Your task to perform on an android device: change the upload size in google photos Image 0: 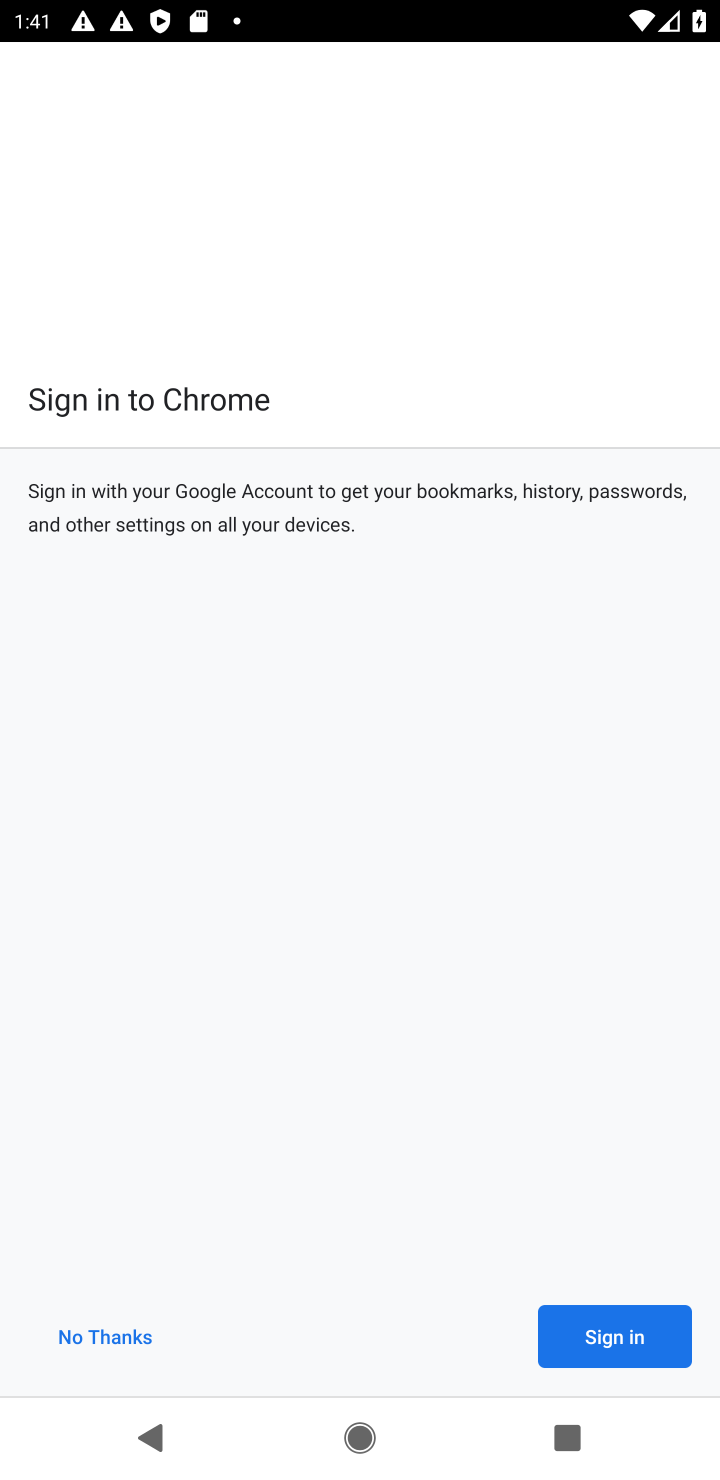
Step 0: press home button
Your task to perform on an android device: change the upload size in google photos Image 1: 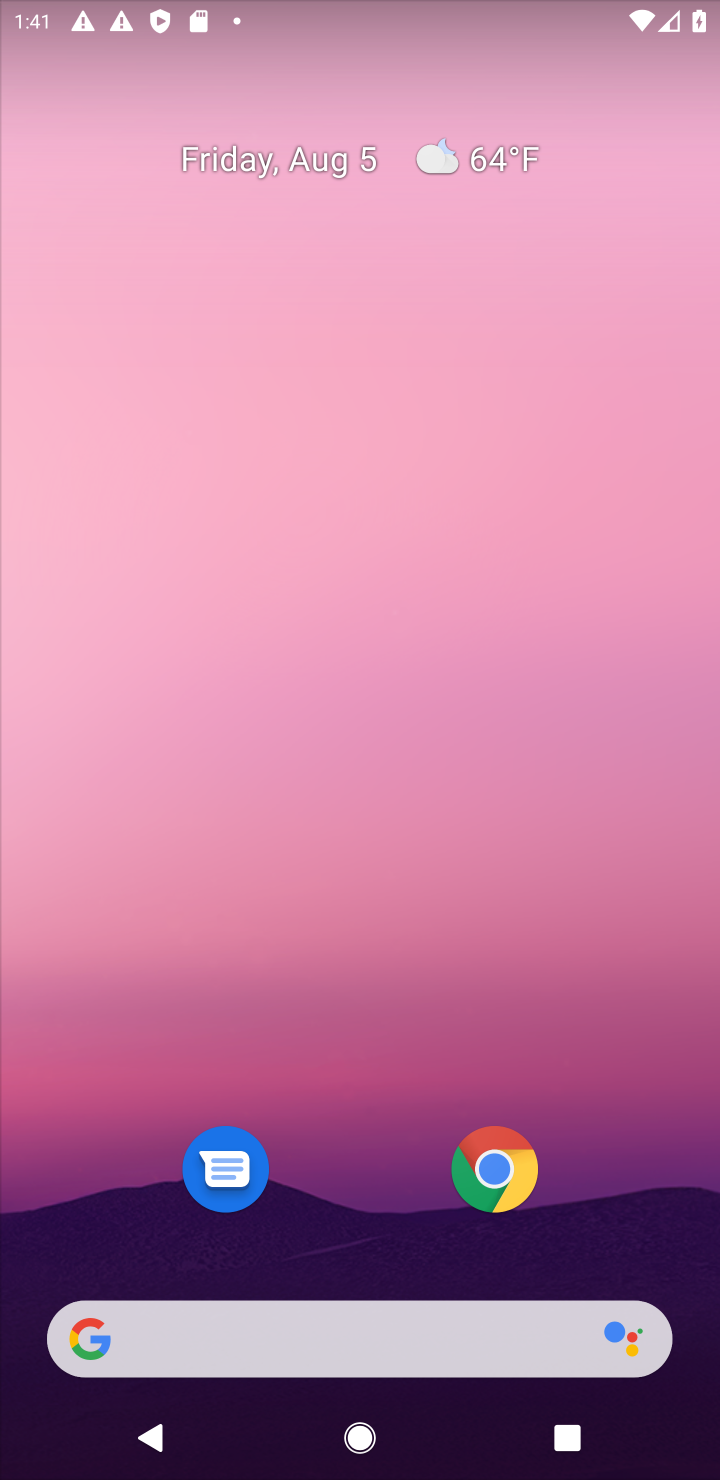
Step 1: drag from (321, 1123) to (214, 332)
Your task to perform on an android device: change the upload size in google photos Image 2: 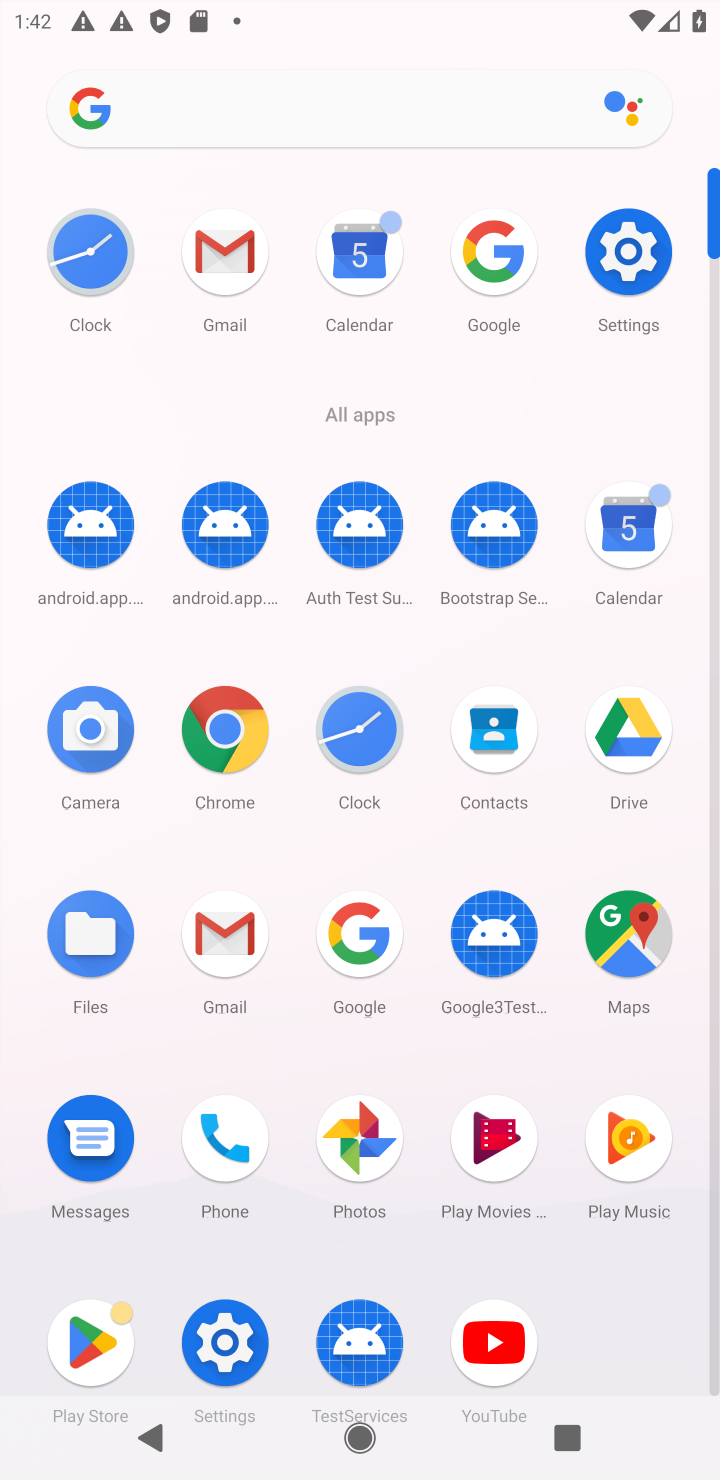
Step 2: click (377, 1142)
Your task to perform on an android device: change the upload size in google photos Image 3: 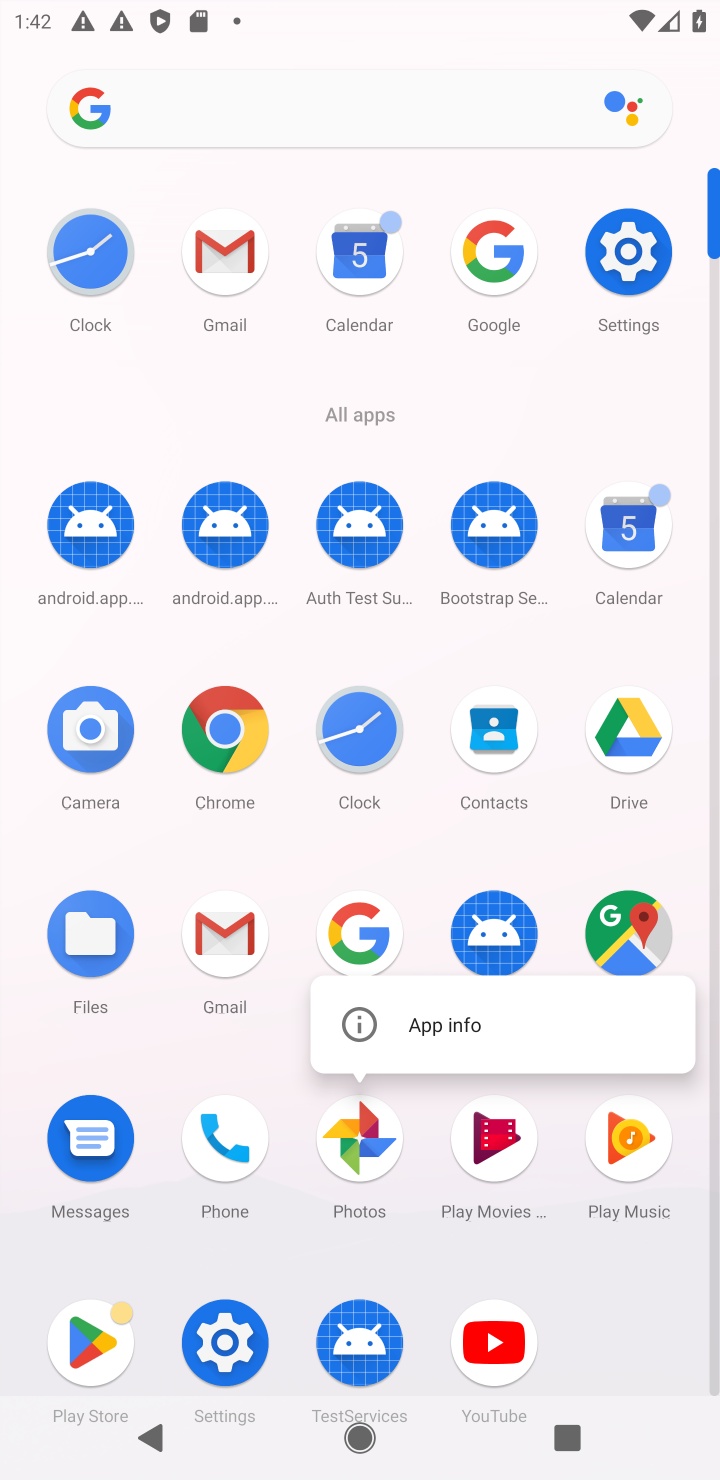
Step 3: click (377, 1142)
Your task to perform on an android device: change the upload size in google photos Image 4: 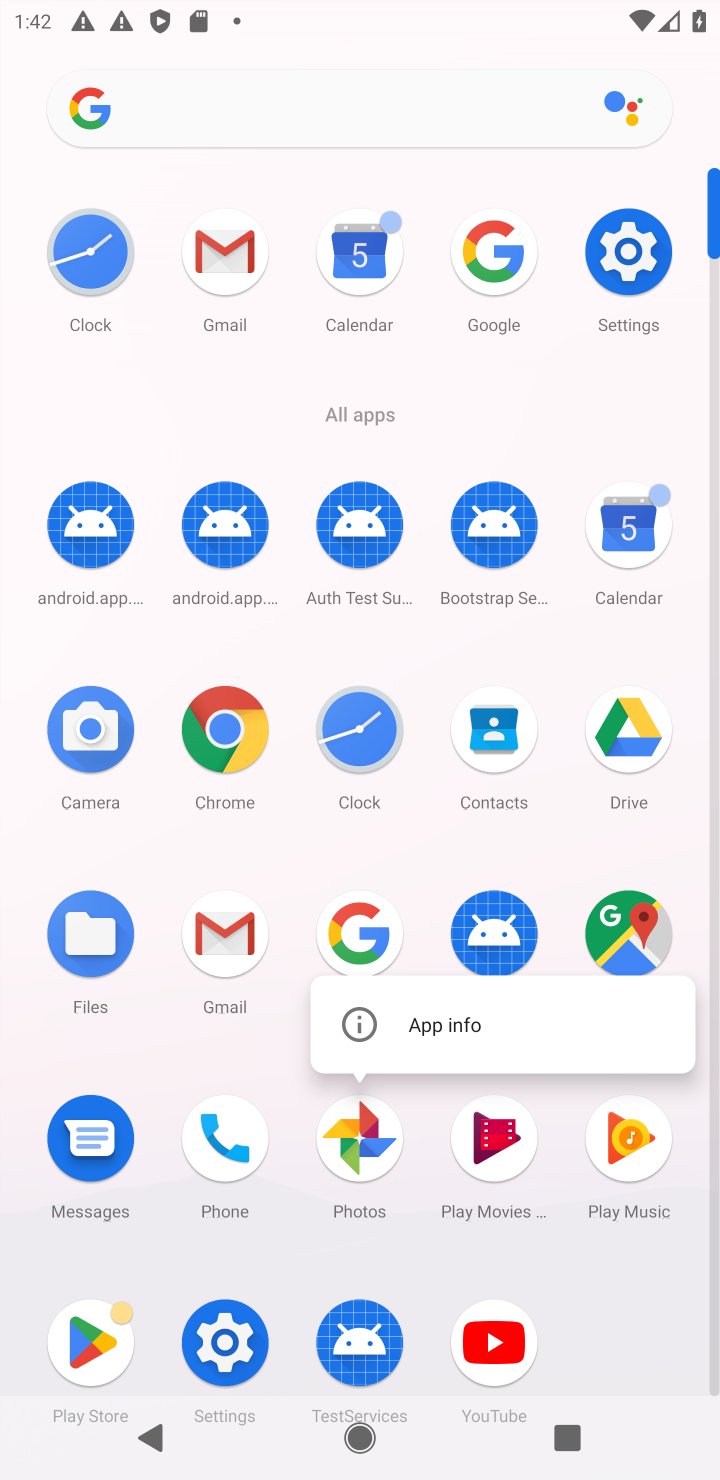
Step 4: click (327, 1142)
Your task to perform on an android device: change the upload size in google photos Image 5: 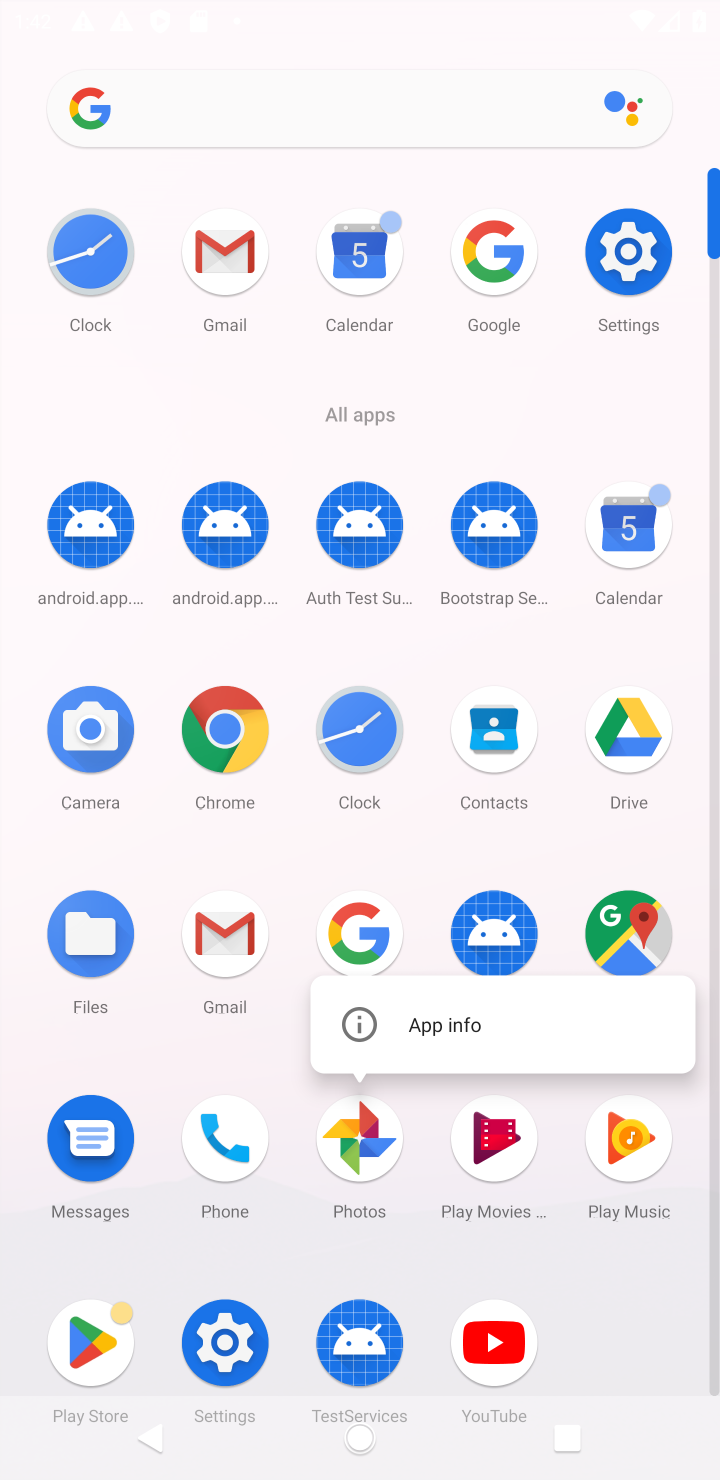
Step 5: click (353, 1135)
Your task to perform on an android device: change the upload size in google photos Image 6: 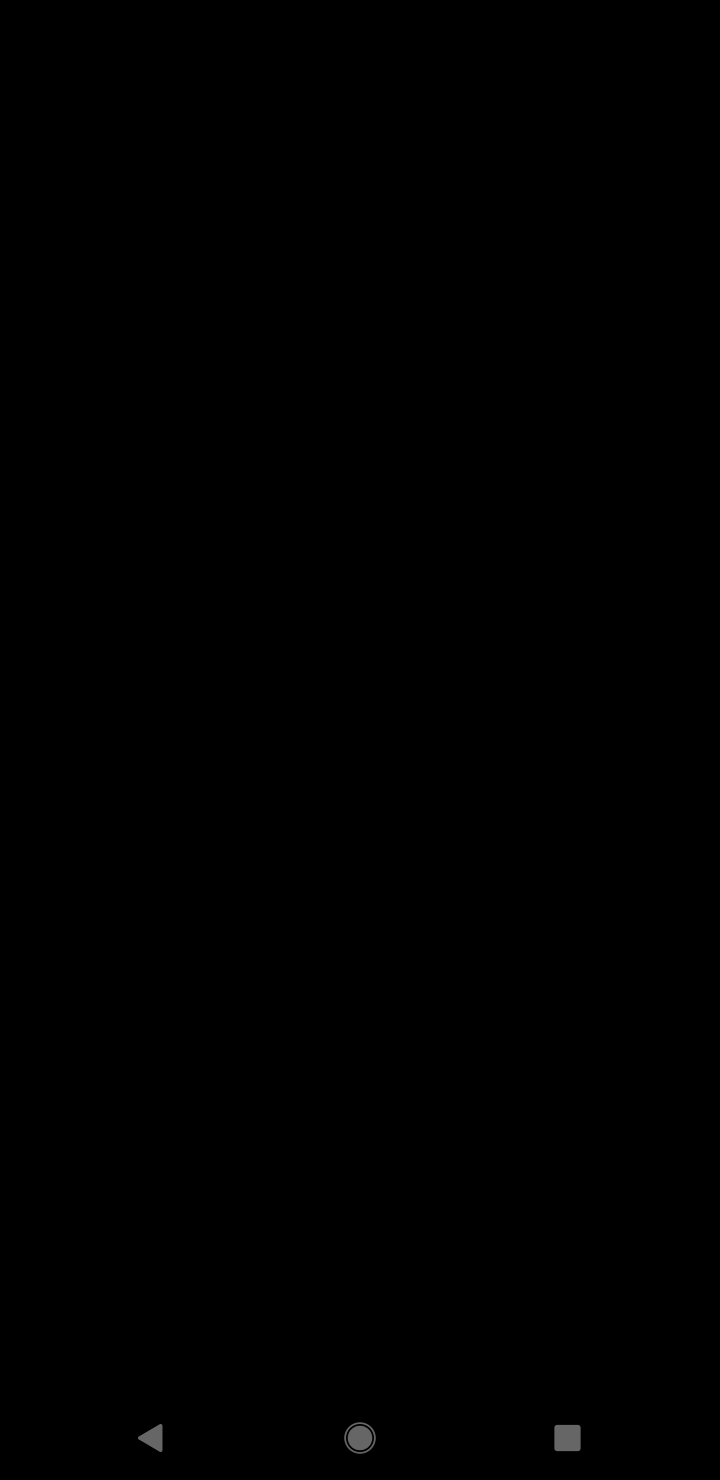
Step 6: press home button
Your task to perform on an android device: change the upload size in google photos Image 7: 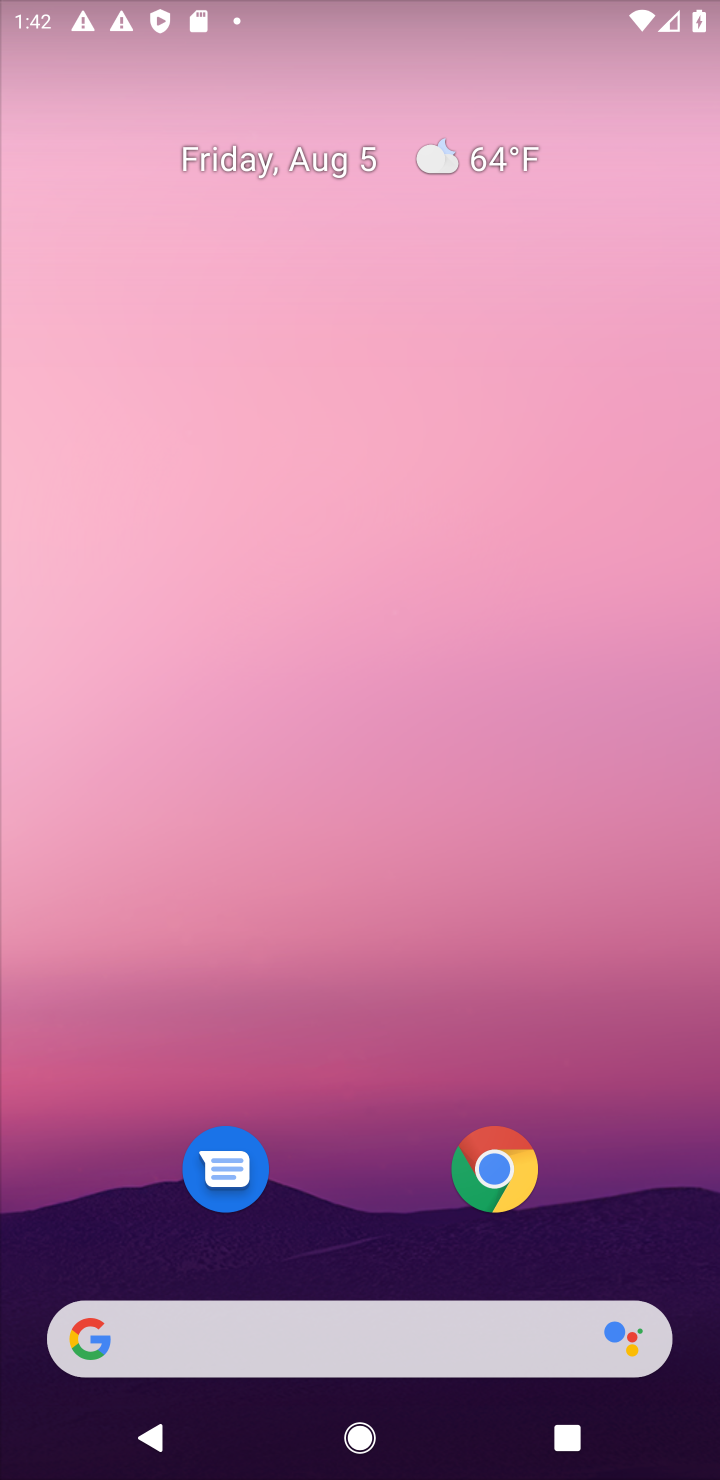
Step 7: drag from (362, 879) to (299, 455)
Your task to perform on an android device: change the upload size in google photos Image 8: 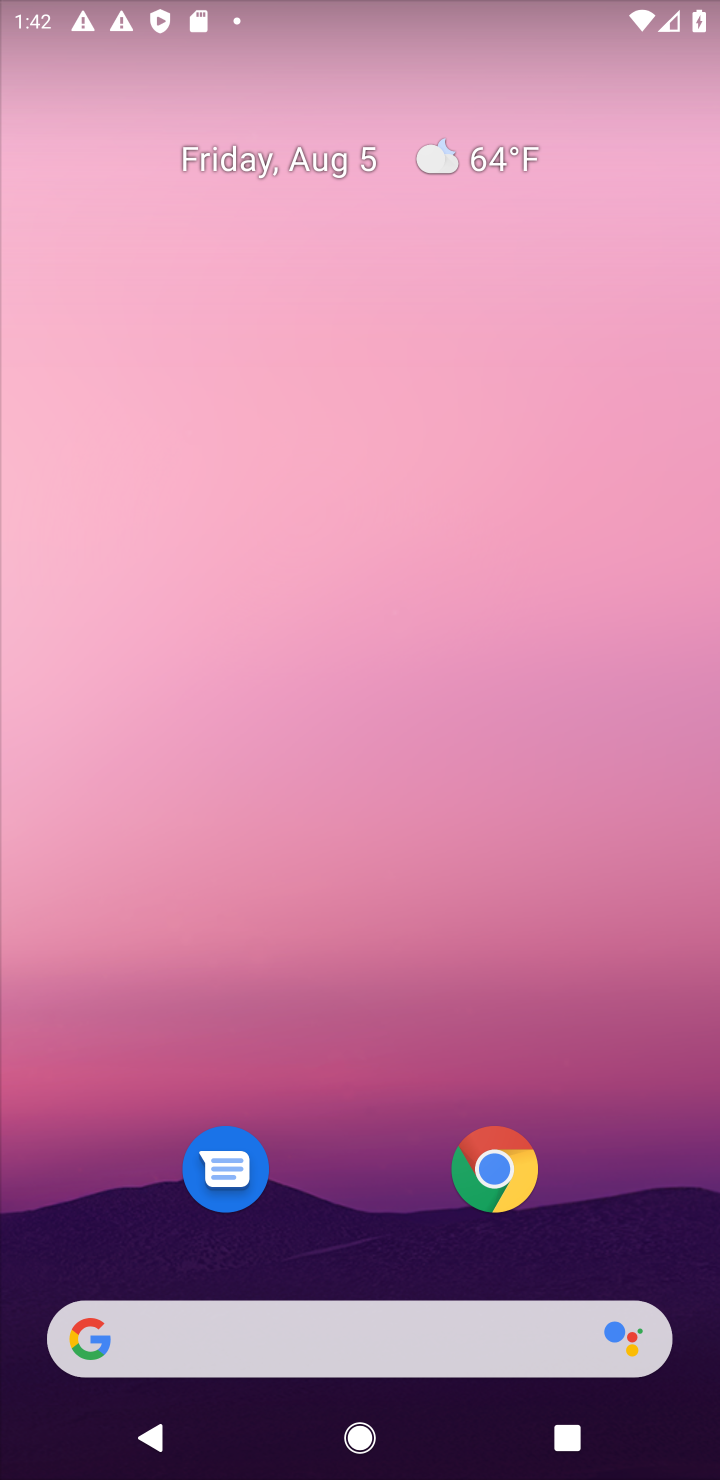
Step 8: drag from (356, 1009) to (359, 33)
Your task to perform on an android device: change the upload size in google photos Image 9: 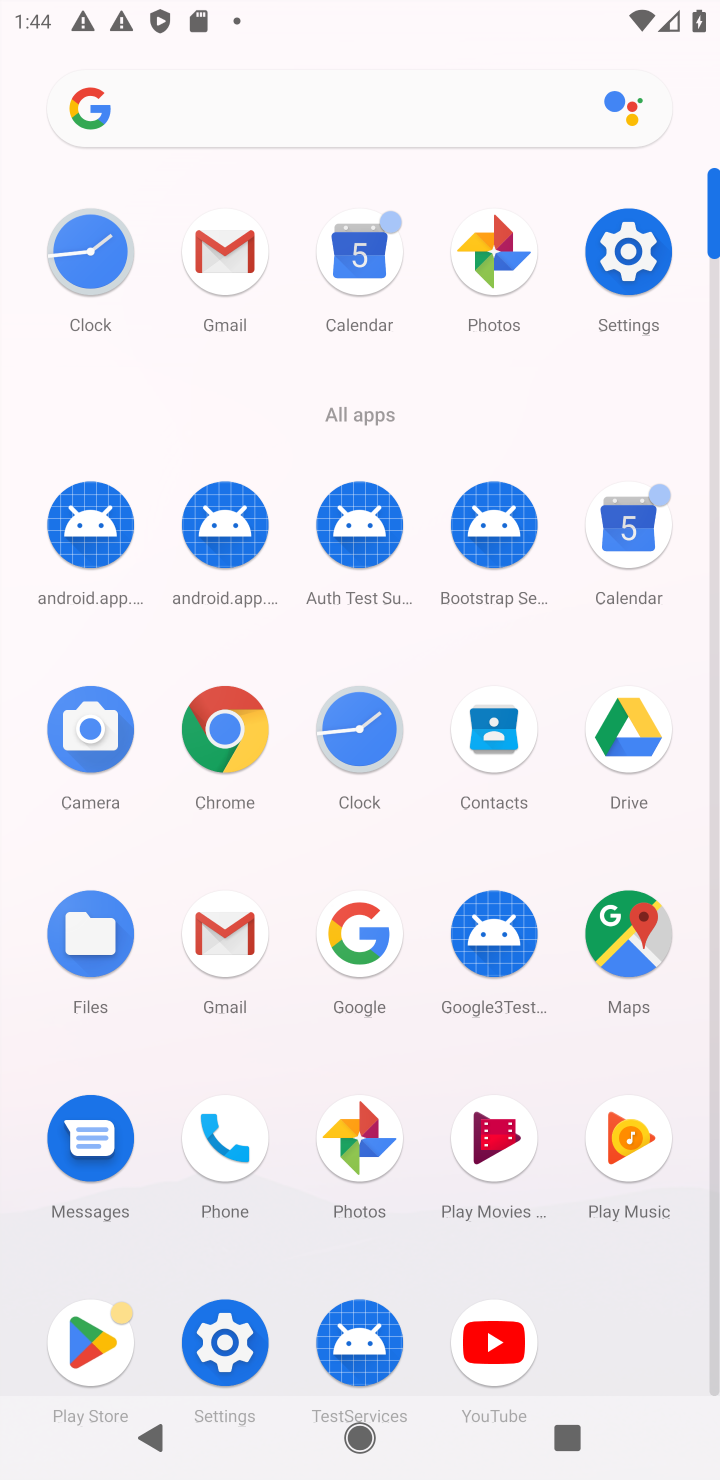
Step 9: click (517, 270)
Your task to perform on an android device: change the upload size in google photos Image 10: 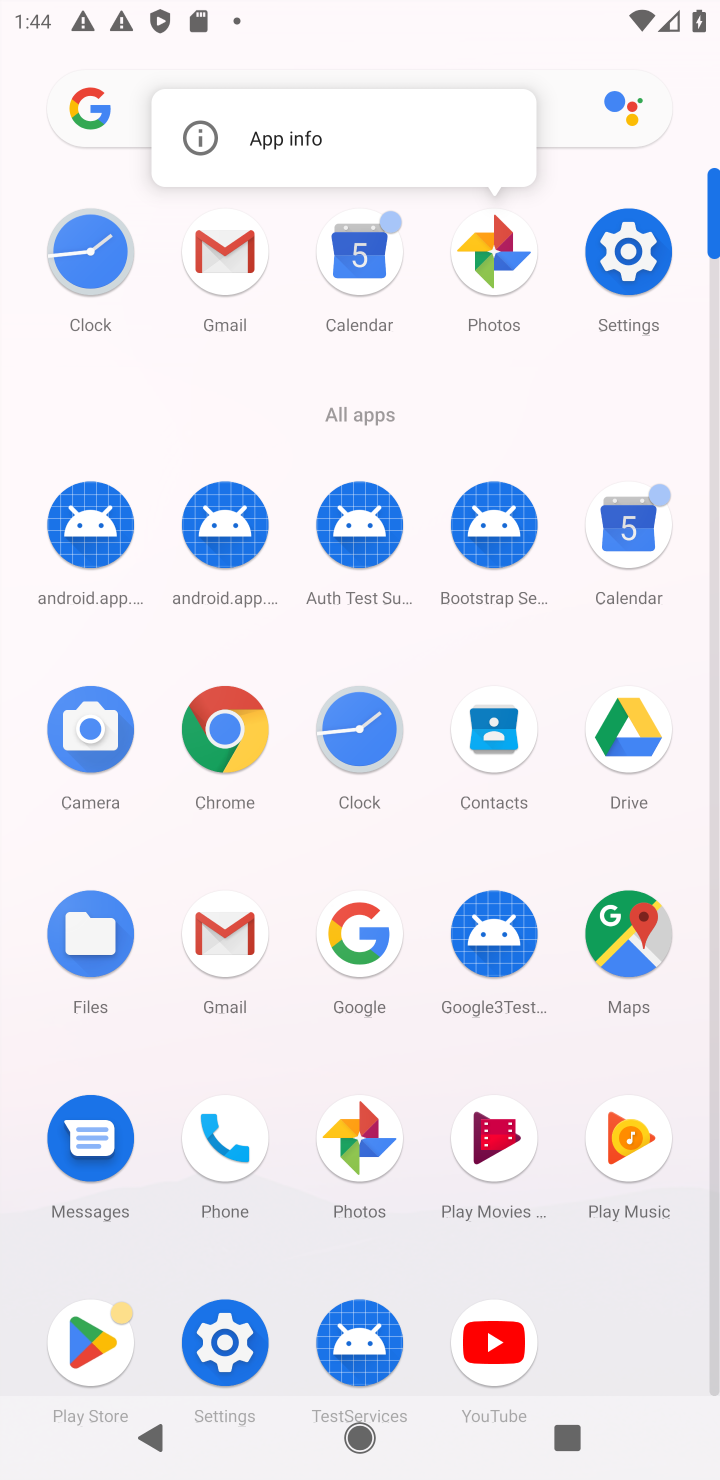
Step 10: click (517, 270)
Your task to perform on an android device: change the upload size in google photos Image 11: 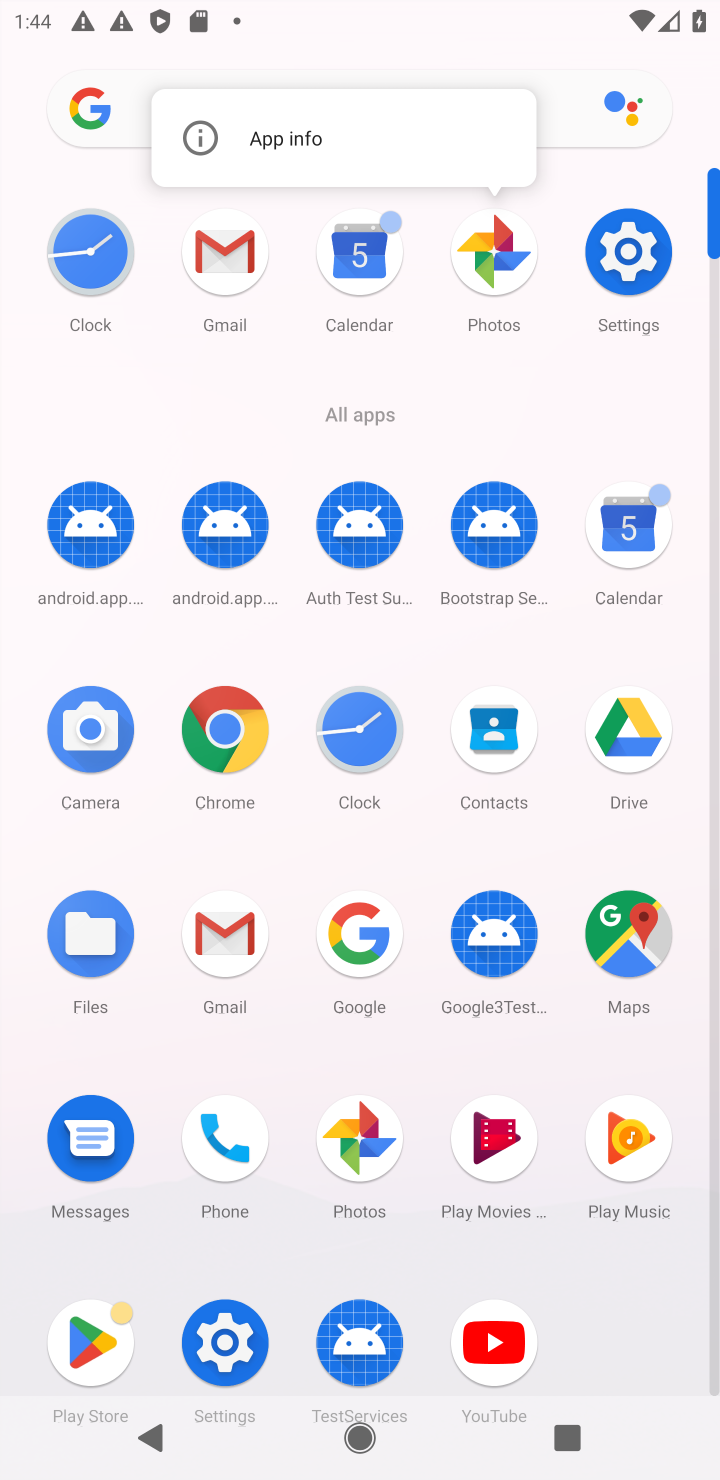
Step 11: task complete